Your task to perform on an android device: Open the phone app and click the voicemail tab. Image 0: 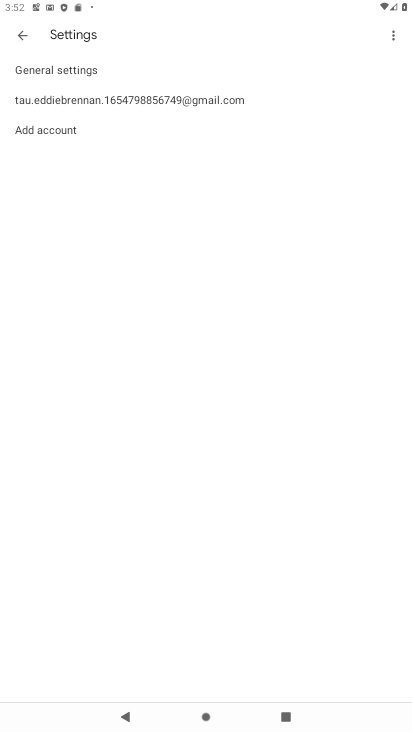
Step 0: press home button
Your task to perform on an android device: Open the phone app and click the voicemail tab. Image 1: 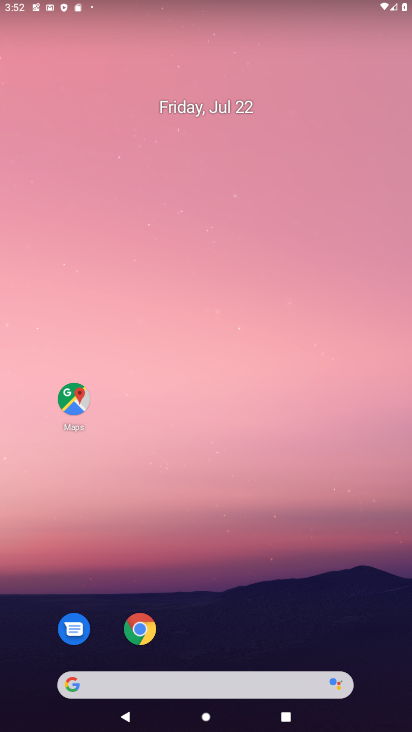
Step 1: drag from (368, 612) to (298, 252)
Your task to perform on an android device: Open the phone app and click the voicemail tab. Image 2: 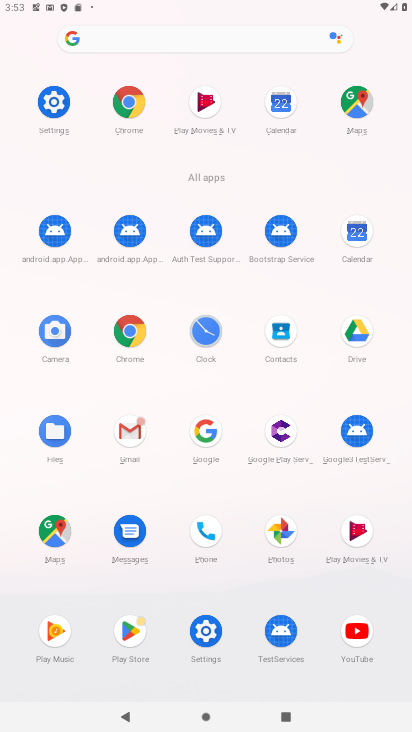
Step 2: click (200, 525)
Your task to perform on an android device: Open the phone app and click the voicemail tab. Image 3: 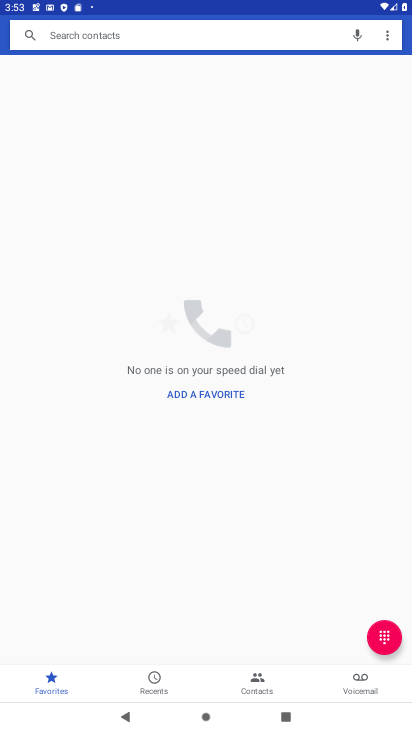
Step 3: click (362, 677)
Your task to perform on an android device: Open the phone app and click the voicemail tab. Image 4: 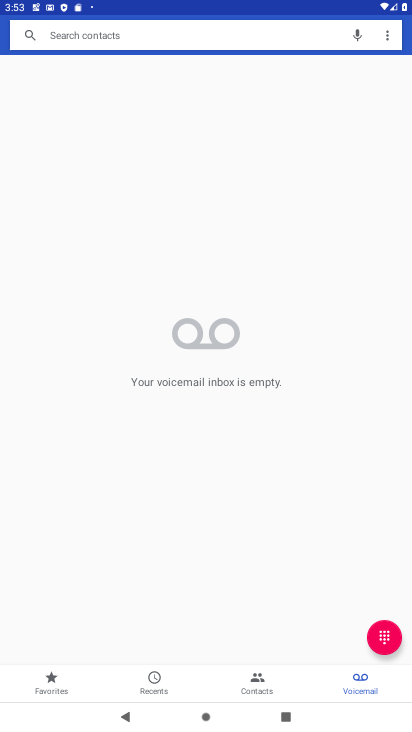
Step 4: task complete